Your task to perform on an android device: open the mobile data screen to see how much data has been used Image 0: 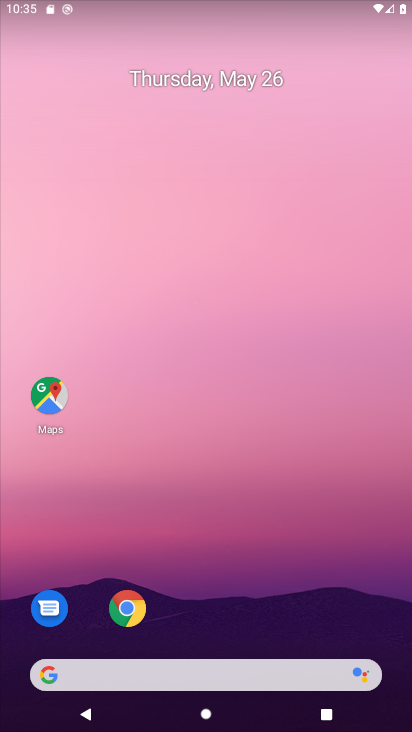
Step 0: drag from (385, 667) to (297, 167)
Your task to perform on an android device: open the mobile data screen to see how much data has been used Image 1: 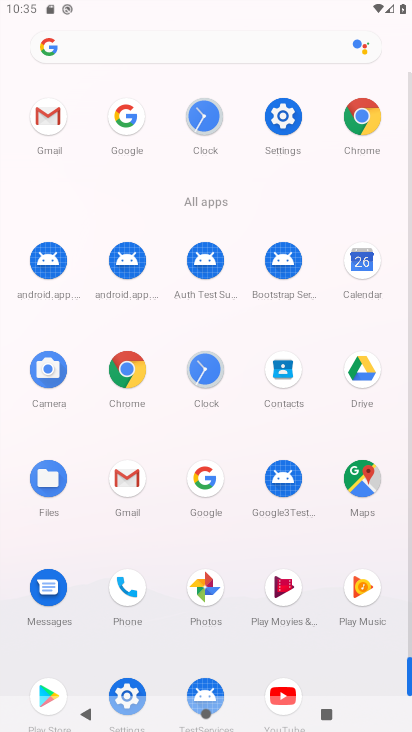
Step 1: click (287, 110)
Your task to perform on an android device: open the mobile data screen to see how much data has been used Image 2: 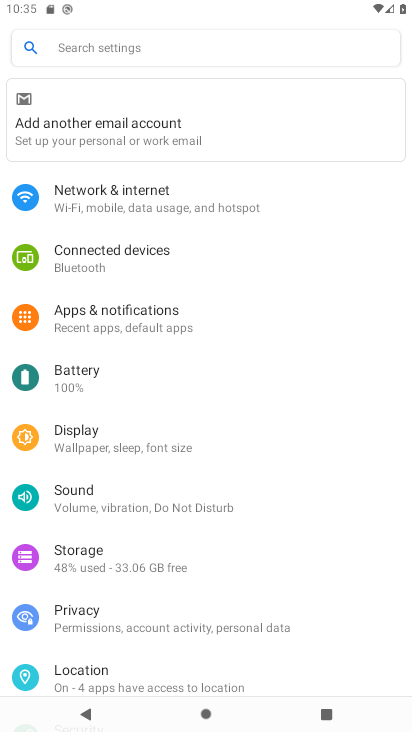
Step 2: click (92, 190)
Your task to perform on an android device: open the mobile data screen to see how much data has been used Image 3: 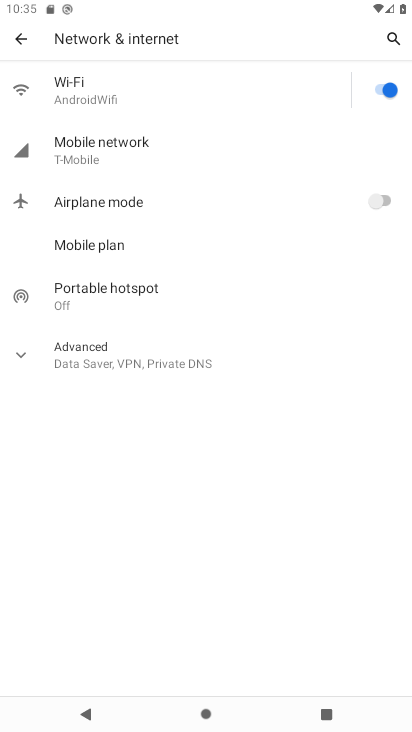
Step 3: click (88, 149)
Your task to perform on an android device: open the mobile data screen to see how much data has been used Image 4: 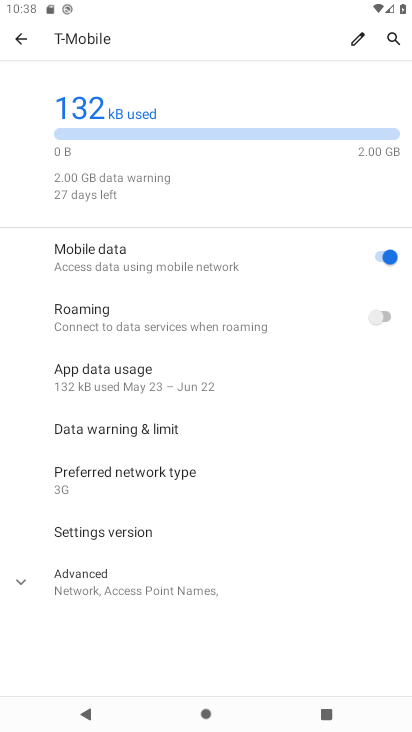
Step 4: task complete